Your task to perform on an android device: What's on my calendar today? Image 0: 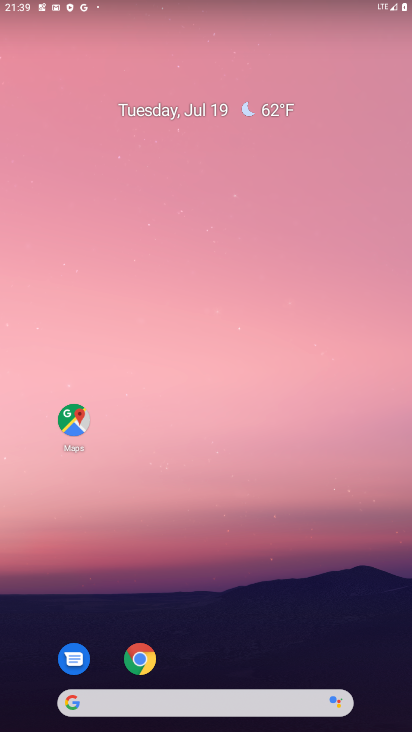
Step 0: press home button
Your task to perform on an android device: What's on my calendar today? Image 1: 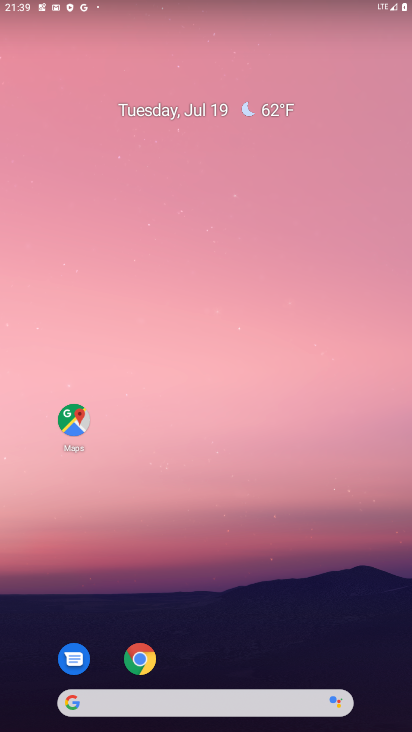
Step 1: drag from (323, 707) to (287, 218)
Your task to perform on an android device: What's on my calendar today? Image 2: 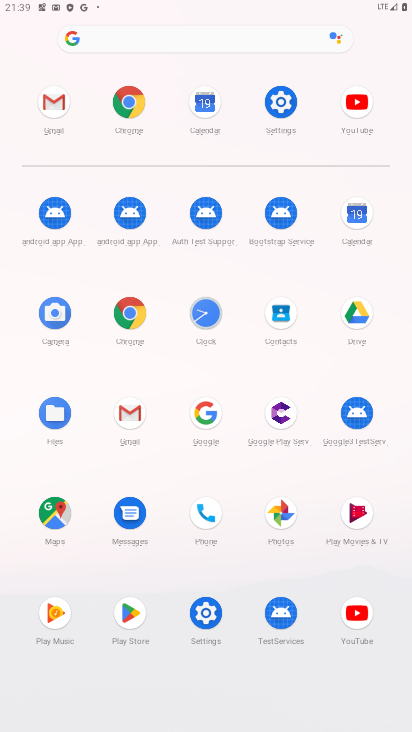
Step 2: click (369, 205)
Your task to perform on an android device: What's on my calendar today? Image 3: 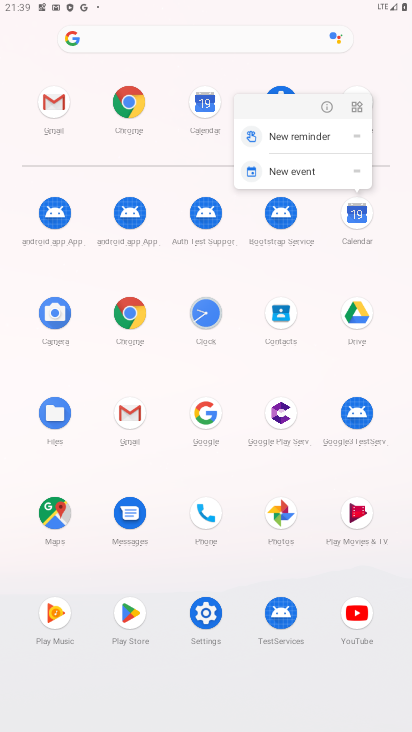
Step 3: click (369, 205)
Your task to perform on an android device: What's on my calendar today? Image 4: 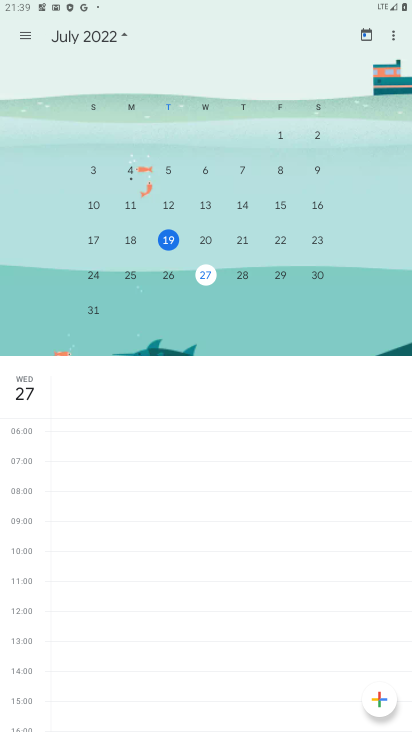
Step 4: click (175, 238)
Your task to perform on an android device: What's on my calendar today? Image 5: 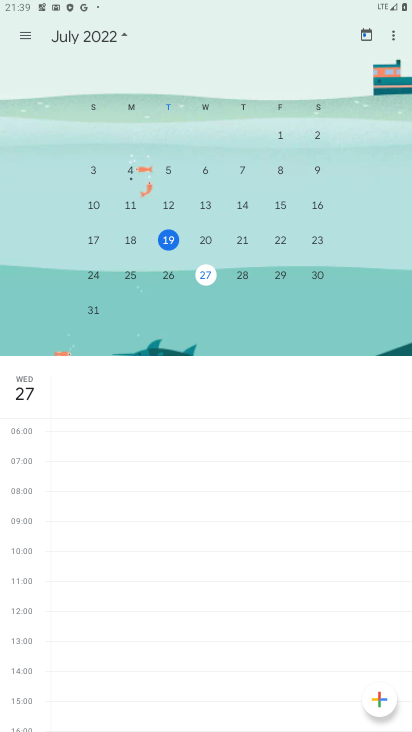
Step 5: click (196, 238)
Your task to perform on an android device: What's on my calendar today? Image 6: 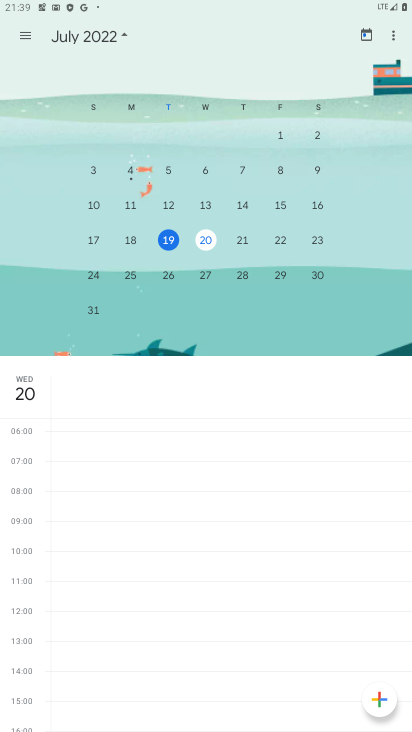
Step 6: task complete